Your task to perform on an android device: Clear all items from cart on ebay. Image 0: 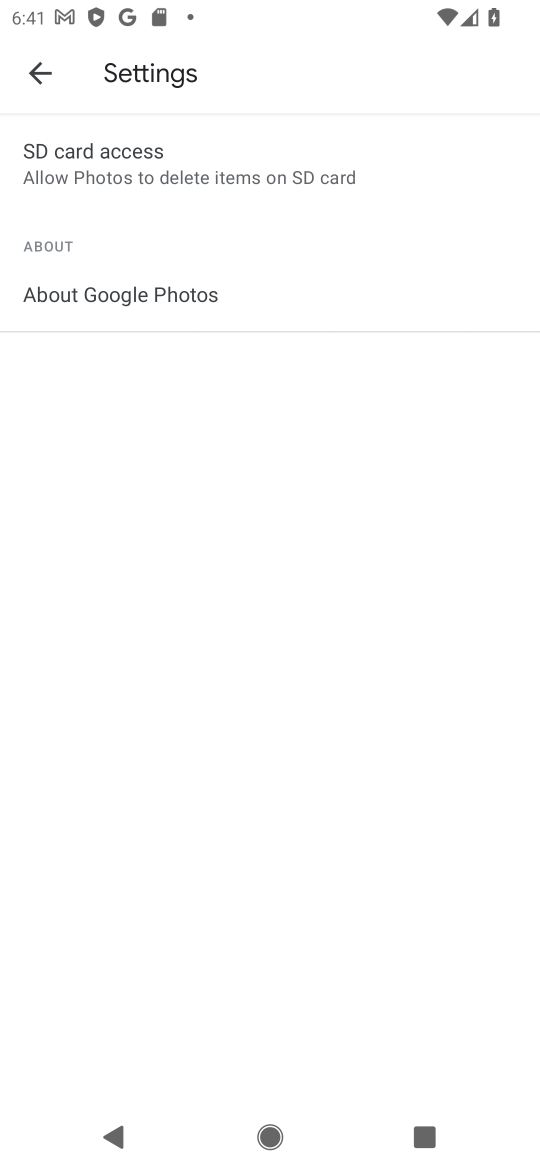
Step 0: press home button
Your task to perform on an android device: Clear all items from cart on ebay. Image 1: 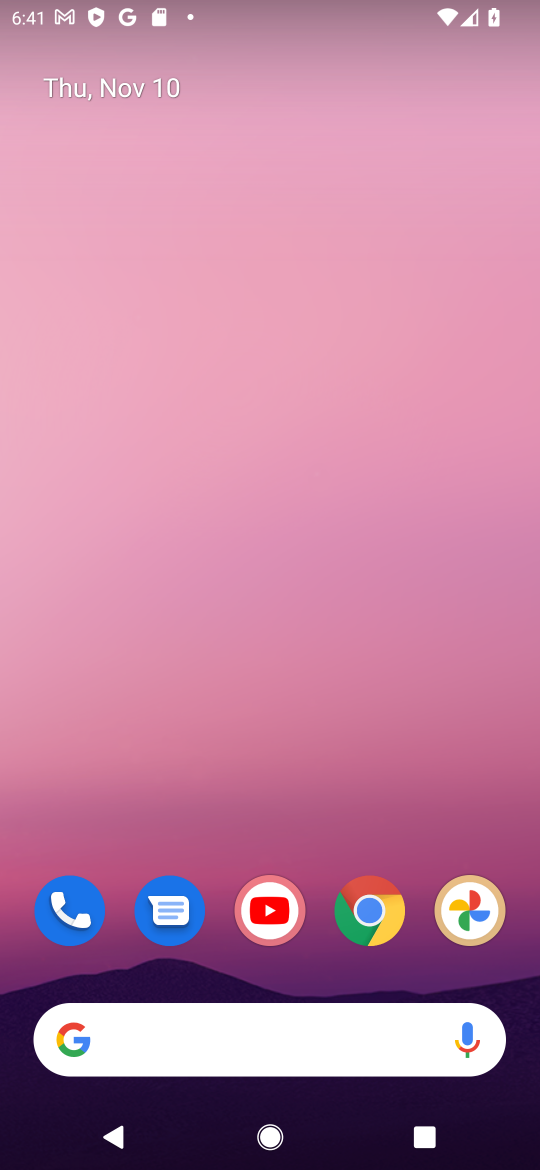
Step 1: click (367, 906)
Your task to perform on an android device: Clear all items from cart on ebay. Image 2: 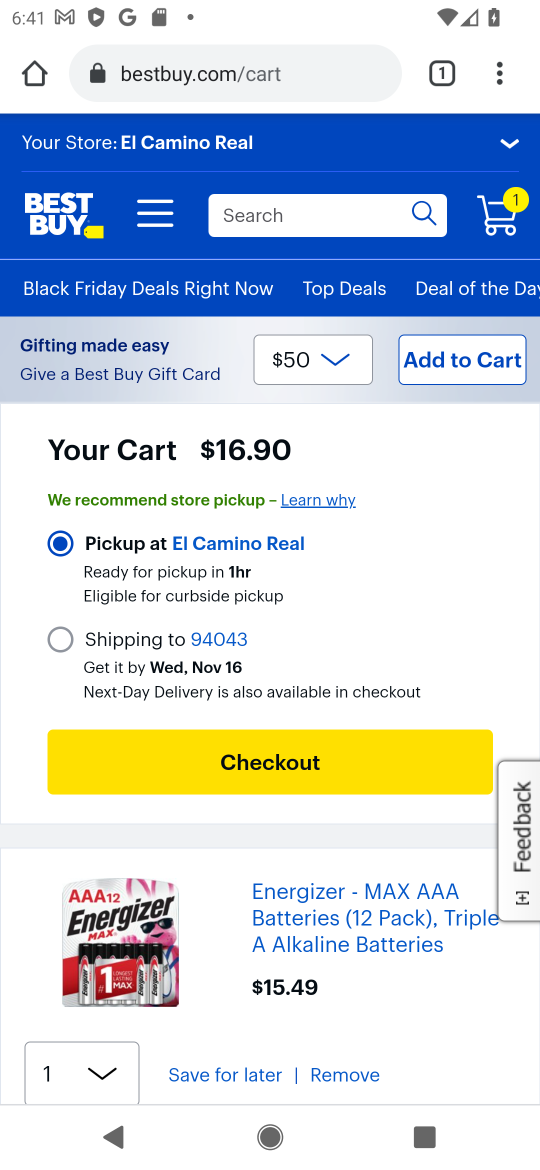
Step 2: click (357, 71)
Your task to perform on an android device: Clear all items from cart on ebay. Image 3: 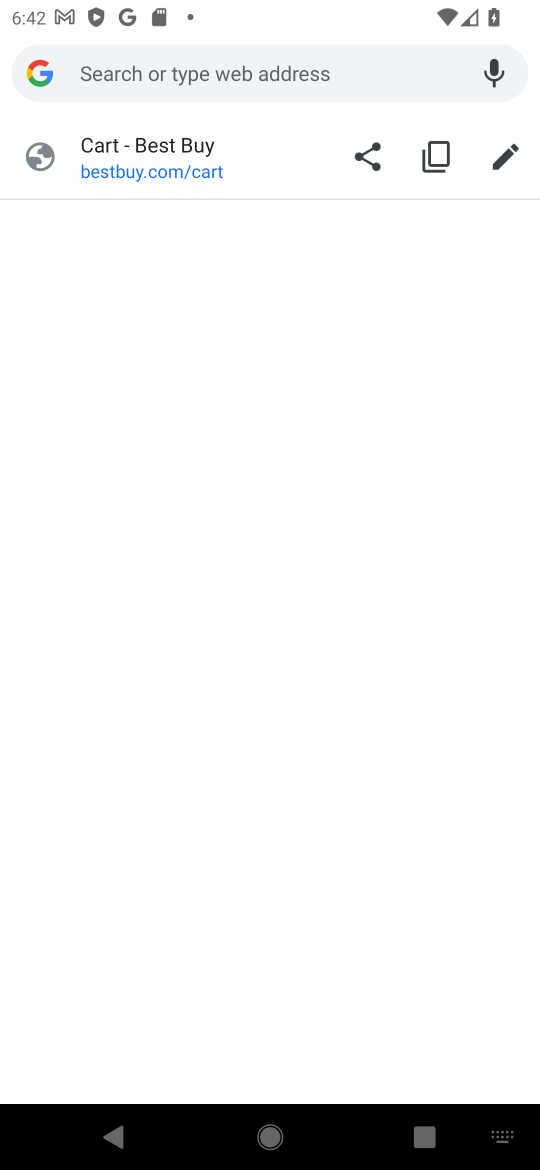
Step 3: type "ebay"
Your task to perform on an android device: Clear all items from cart on ebay. Image 4: 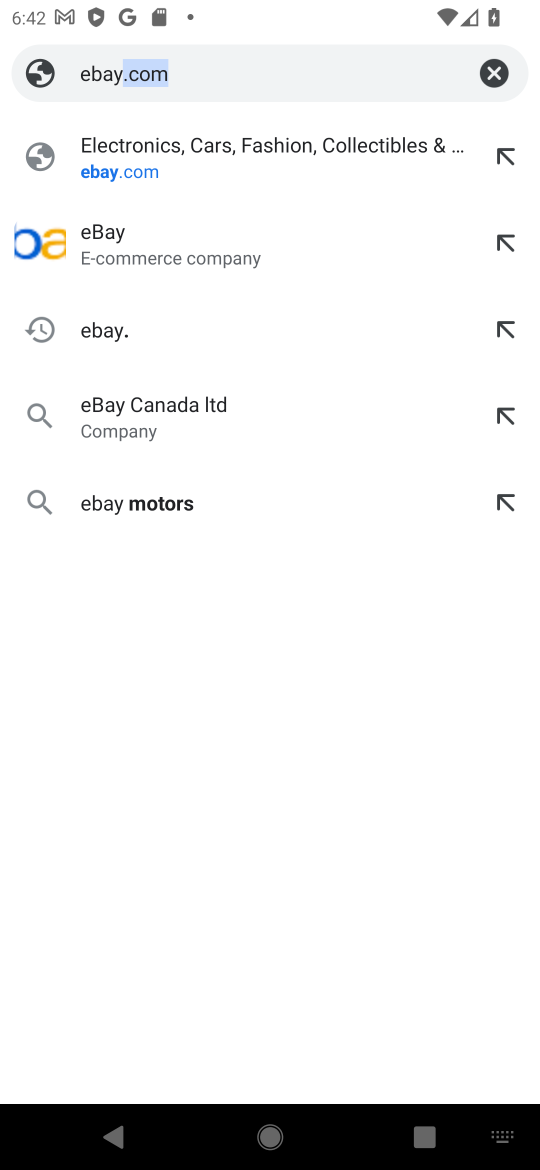
Step 4: click (98, 241)
Your task to perform on an android device: Clear all items from cart on ebay. Image 5: 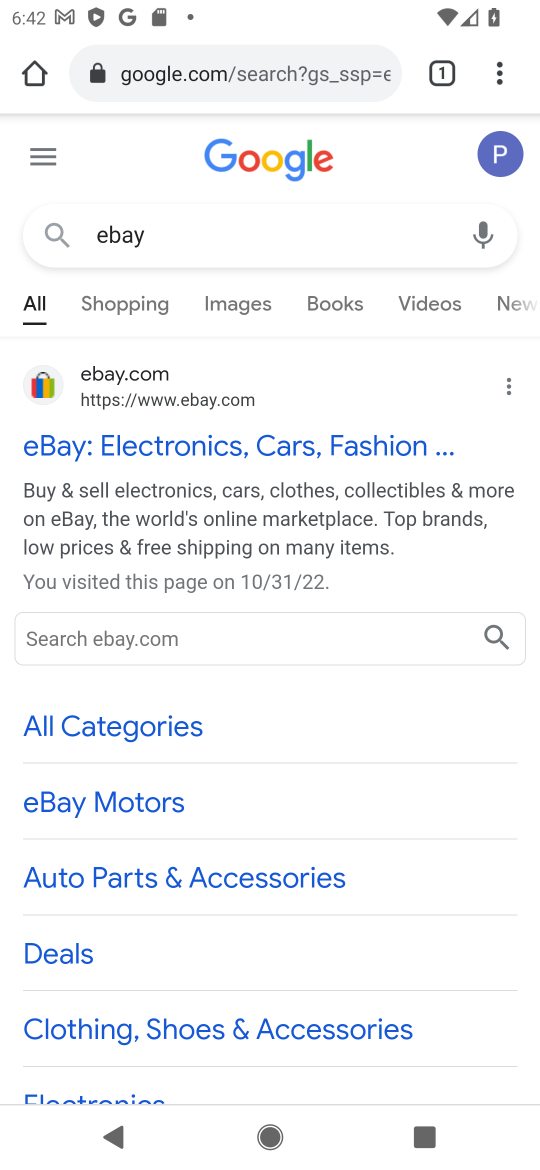
Step 5: click (191, 445)
Your task to perform on an android device: Clear all items from cart on ebay. Image 6: 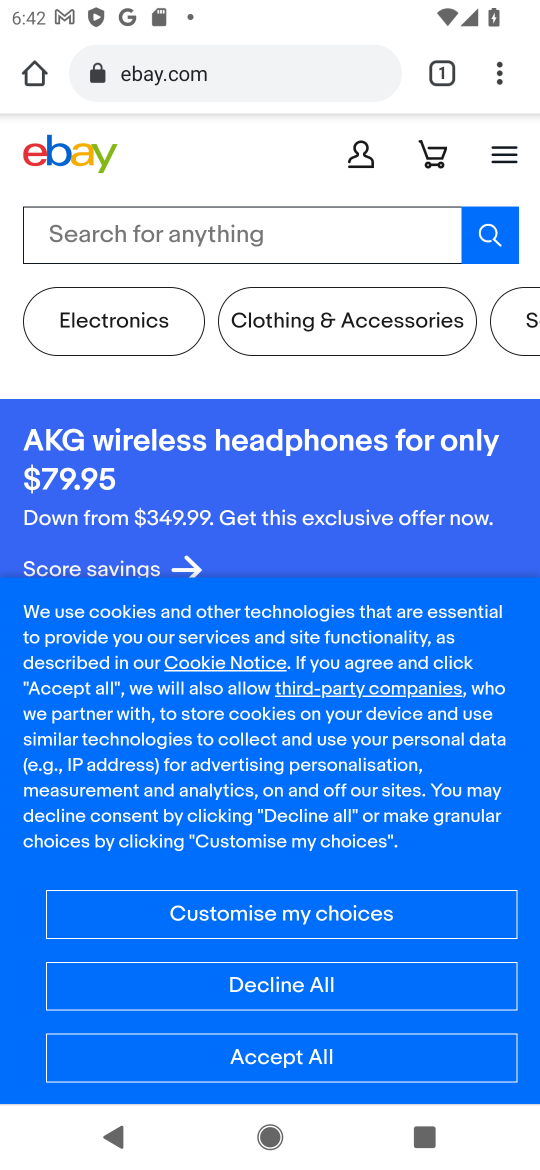
Step 6: click (432, 149)
Your task to perform on an android device: Clear all items from cart on ebay. Image 7: 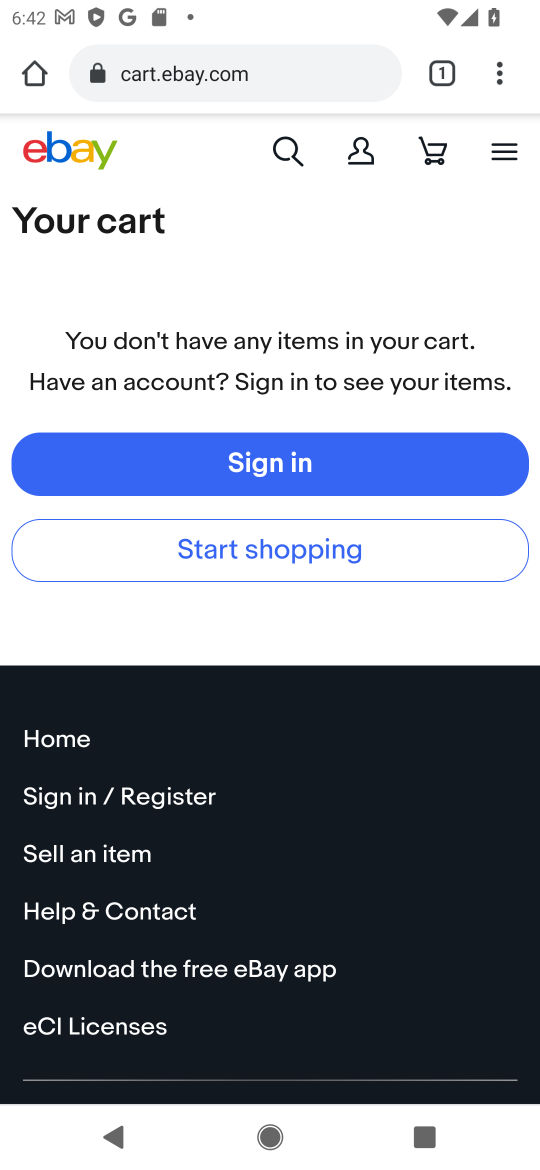
Step 7: task complete